Your task to perform on an android device: turn off airplane mode Image 0: 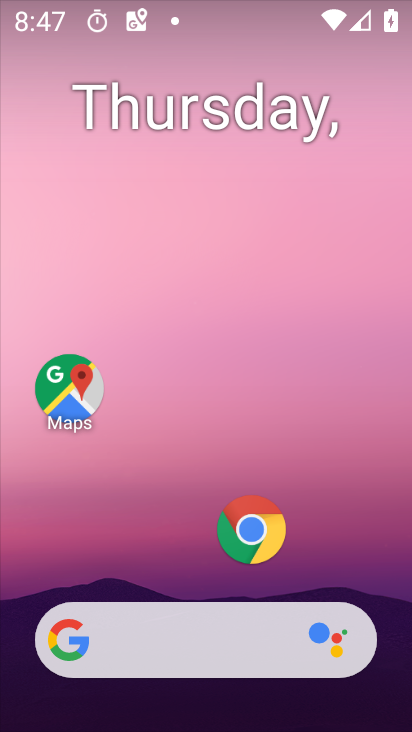
Step 0: drag from (258, 7) to (258, 524)
Your task to perform on an android device: turn off airplane mode Image 1: 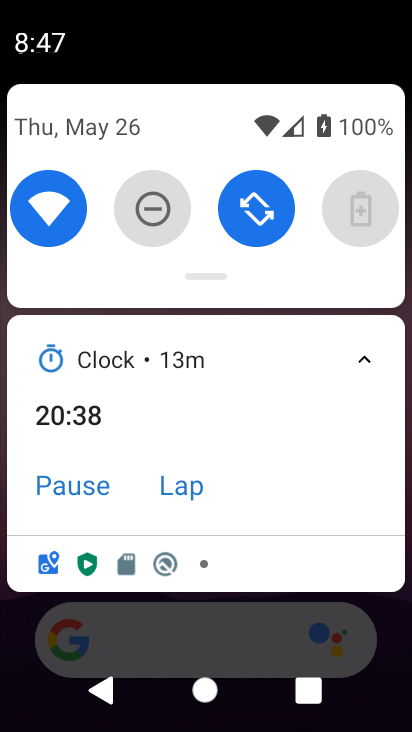
Step 1: task complete